Your task to perform on an android device: check data usage Image 0: 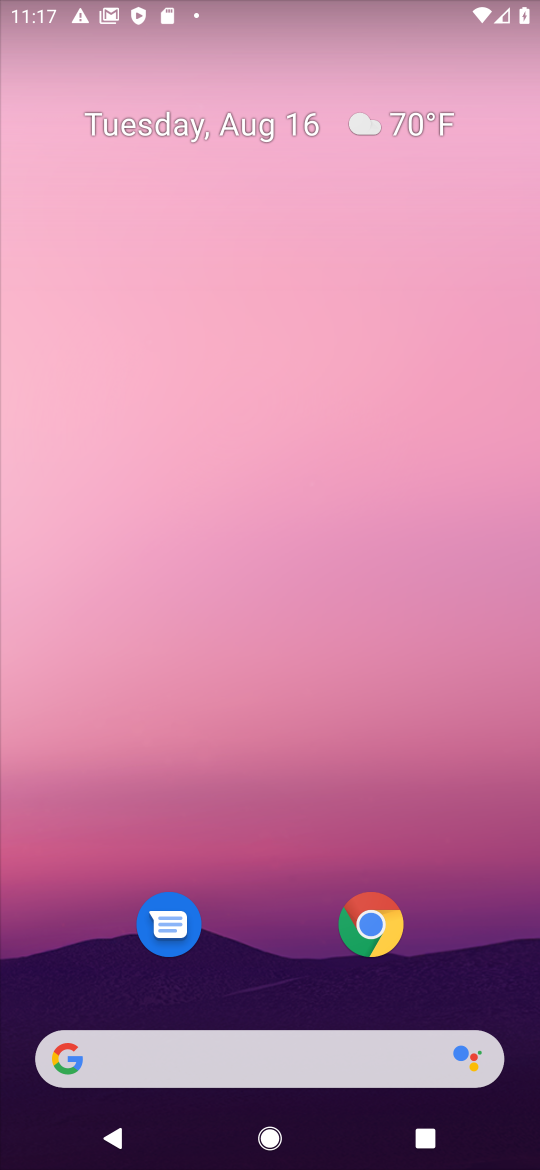
Step 0: drag from (240, 13) to (283, 926)
Your task to perform on an android device: check data usage Image 1: 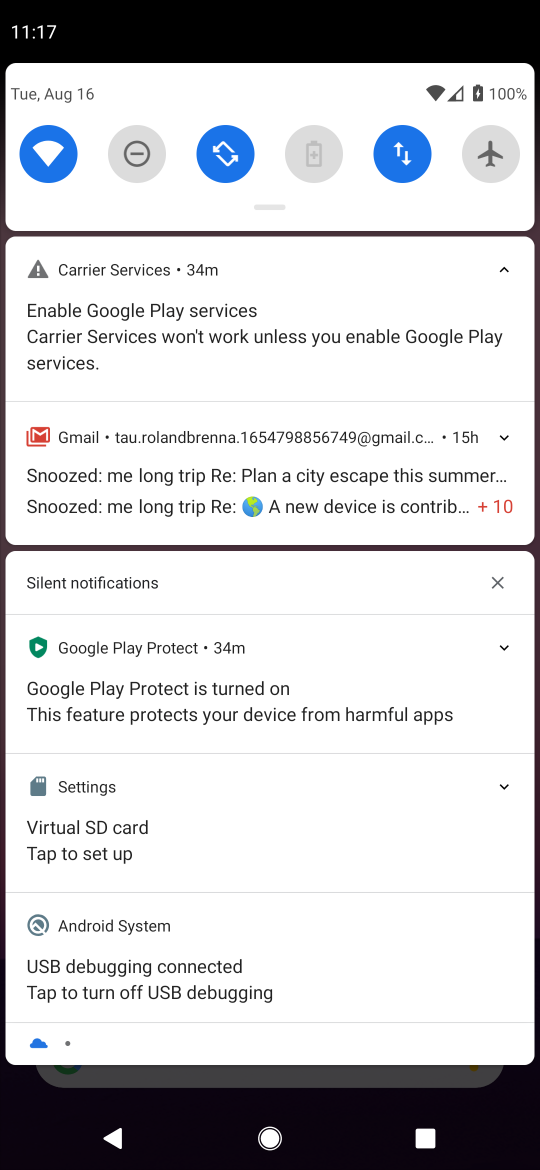
Step 1: click (401, 169)
Your task to perform on an android device: check data usage Image 2: 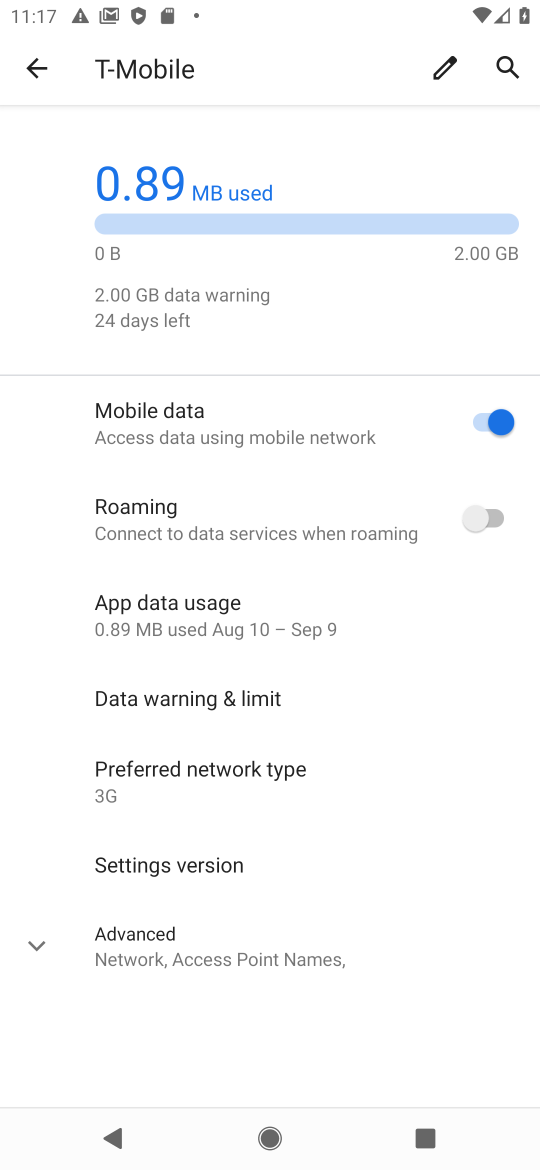
Step 2: task complete